Your task to perform on an android device: turn off location history Image 0: 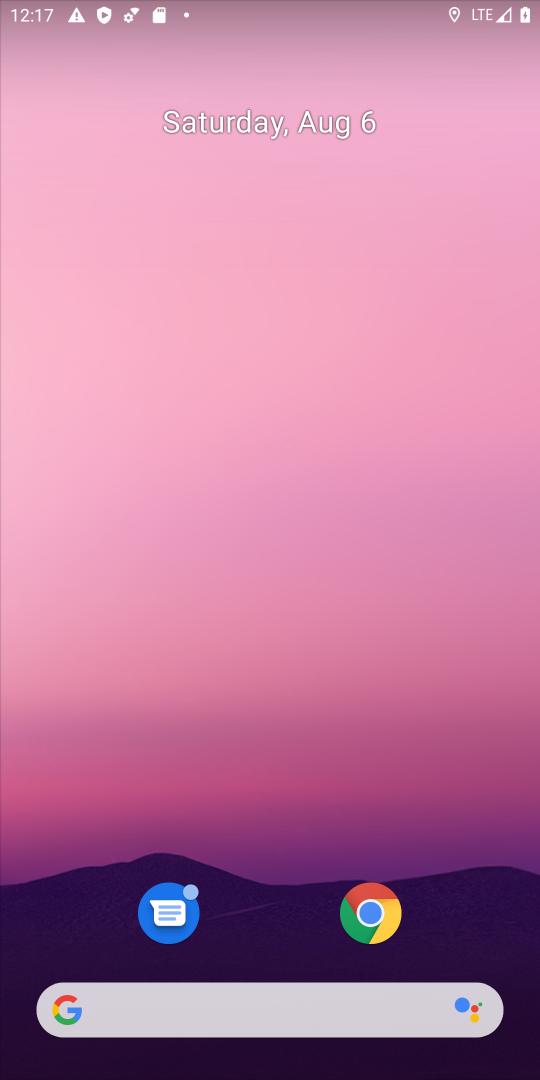
Step 0: press home button
Your task to perform on an android device: turn off location history Image 1: 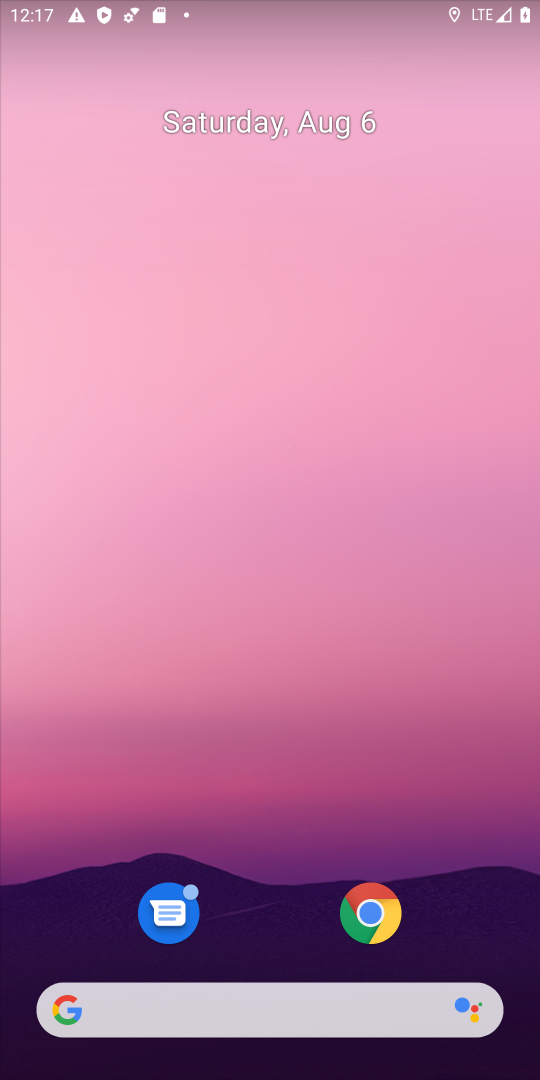
Step 1: drag from (494, 905) to (528, 509)
Your task to perform on an android device: turn off location history Image 2: 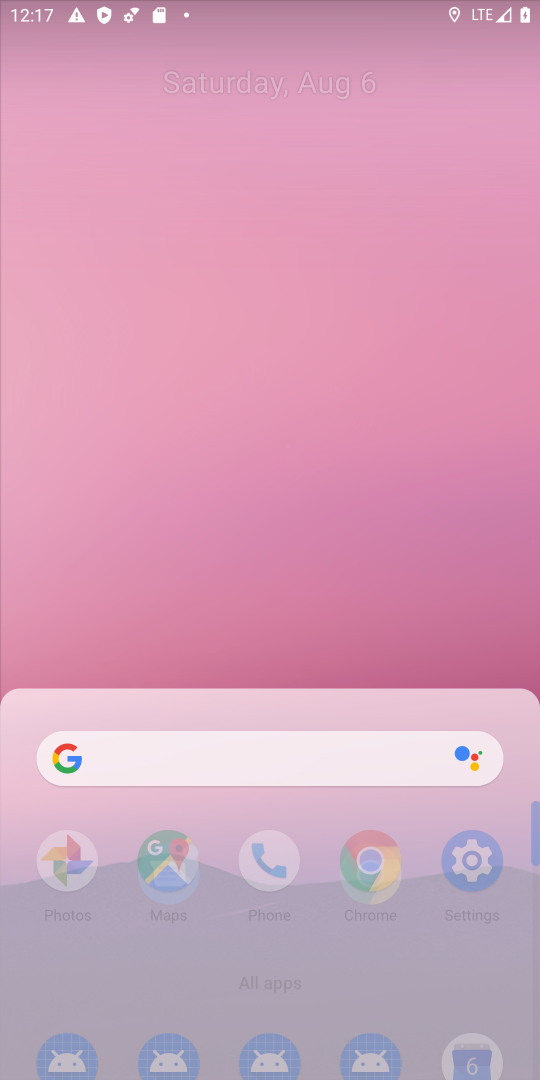
Step 2: drag from (388, 474) to (391, 58)
Your task to perform on an android device: turn off location history Image 3: 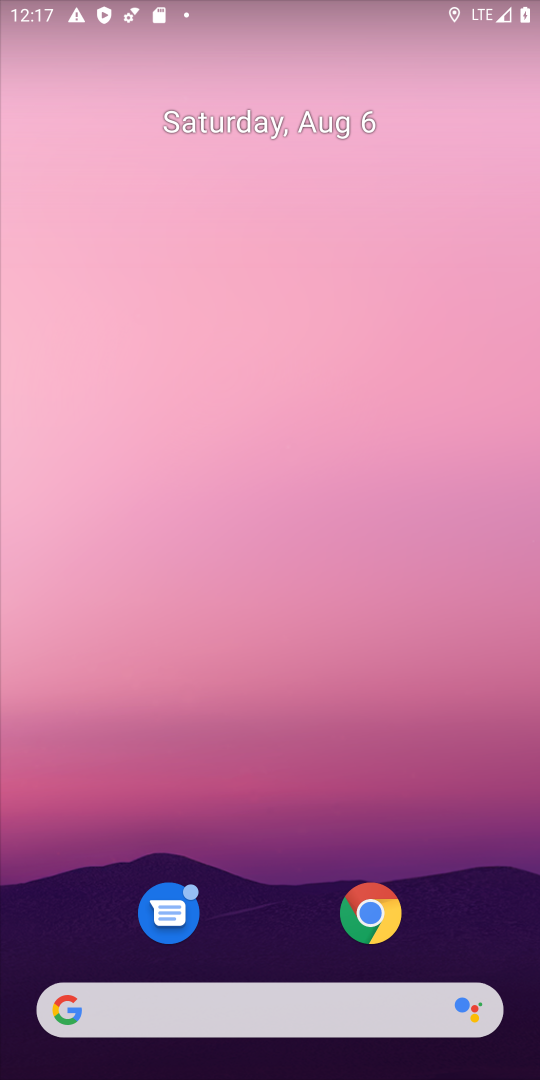
Step 3: drag from (464, 942) to (471, 7)
Your task to perform on an android device: turn off location history Image 4: 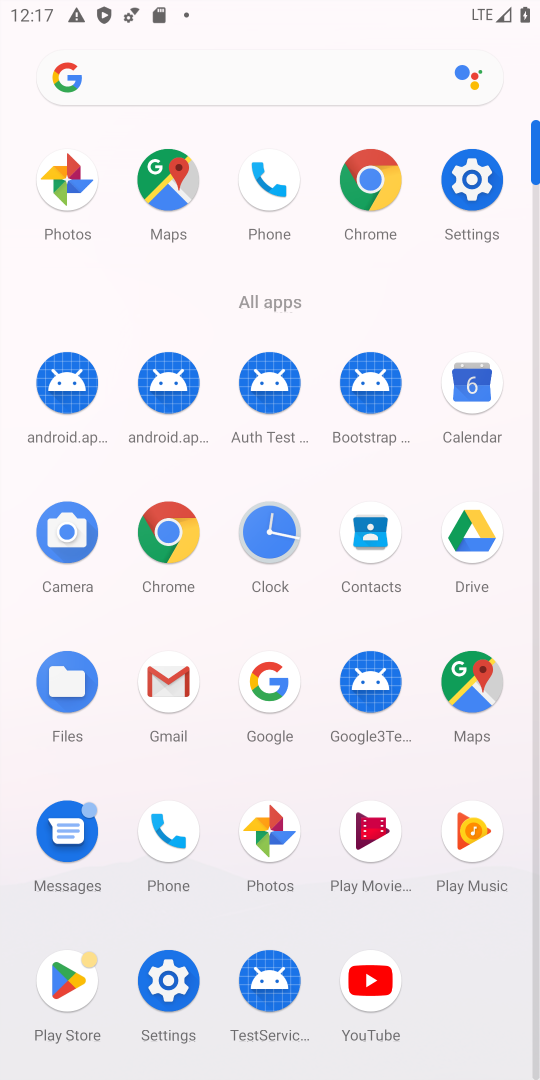
Step 4: click (479, 187)
Your task to perform on an android device: turn off location history Image 5: 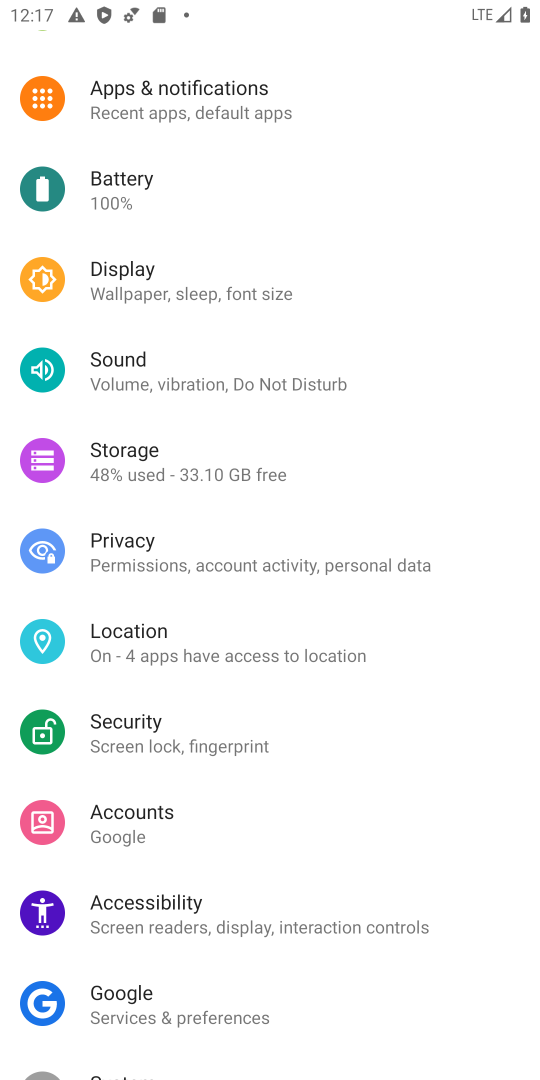
Step 5: drag from (460, 649) to (464, 469)
Your task to perform on an android device: turn off location history Image 6: 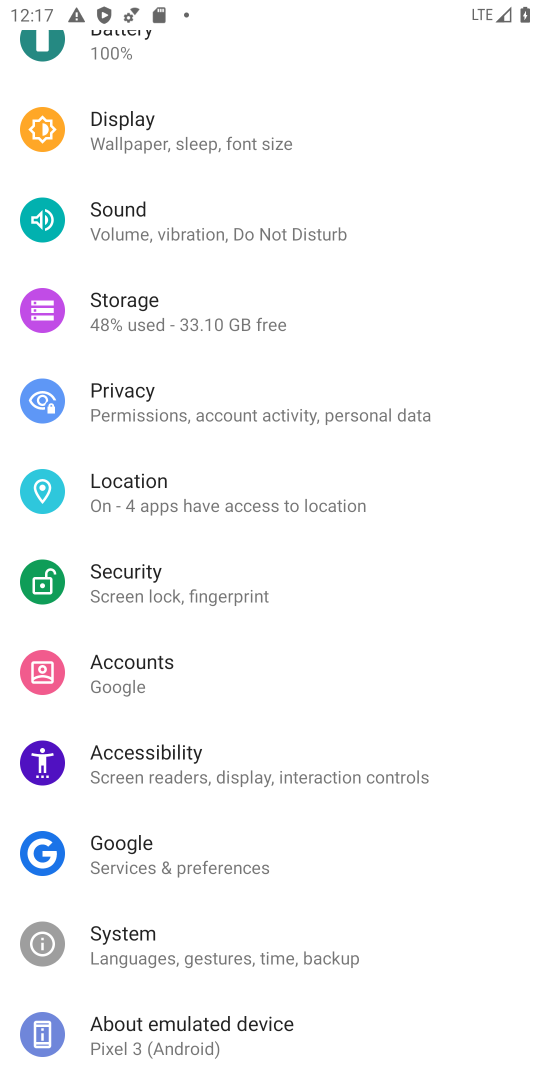
Step 6: drag from (445, 663) to (454, 501)
Your task to perform on an android device: turn off location history Image 7: 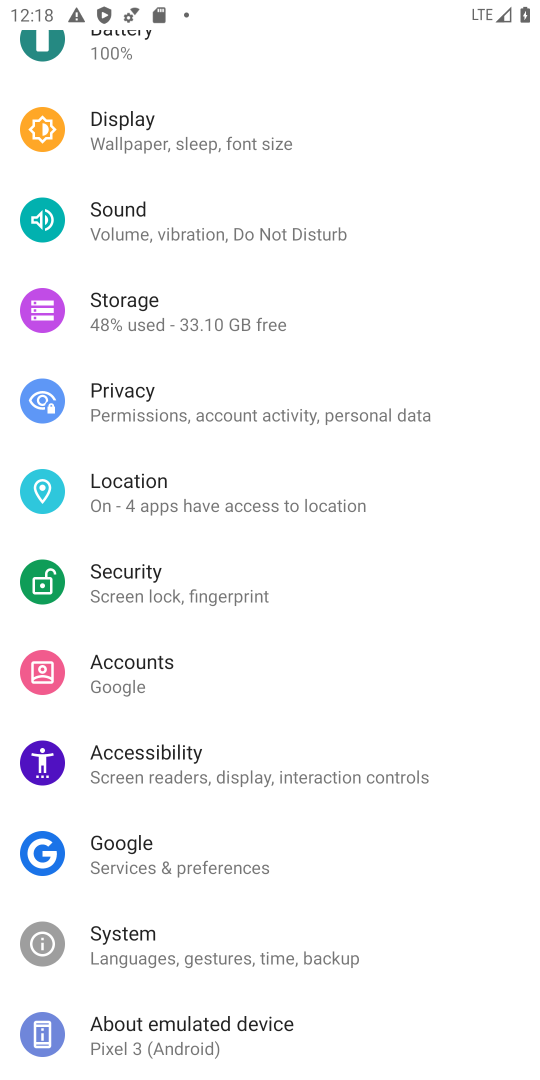
Step 7: click (391, 487)
Your task to perform on an android device: turn off location history Image 8: 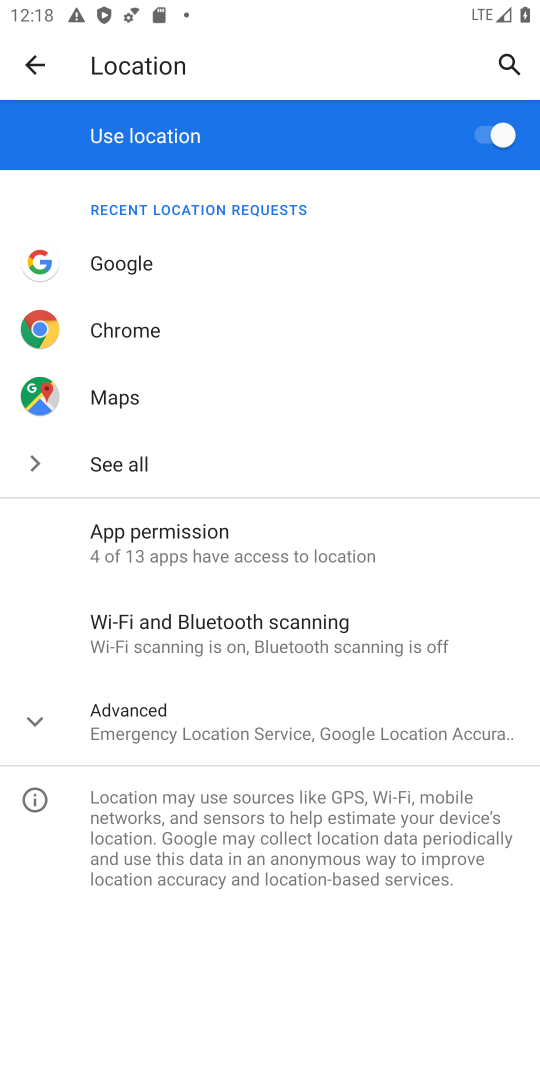
Step 8: click (357, 730)
Your task to perform on an android device: turn off location history Image 9: 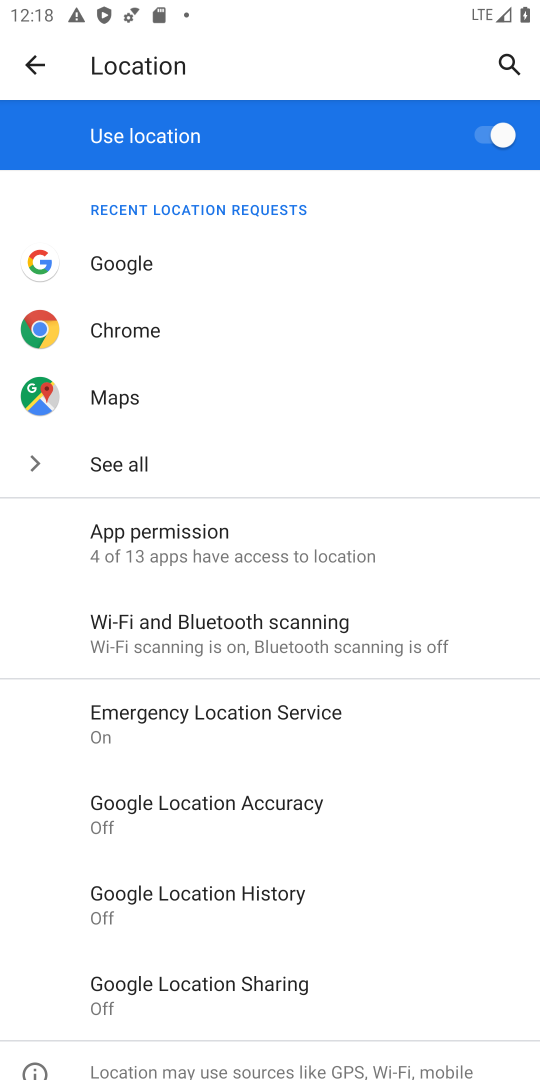
Step 9: click (269, 910)
Your task to perform on an android device: turn off location history Image 10: 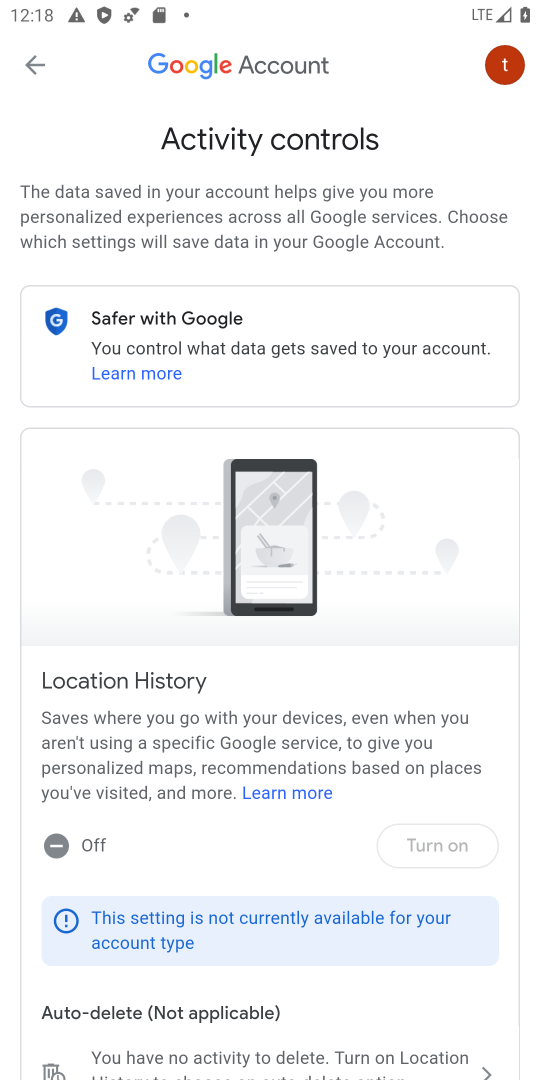
Step 10: task complete